Your task to perform on an android device: Search for "beats solo 3" on target, select the first entry, add it to the cart, then select checkout. Image 0: 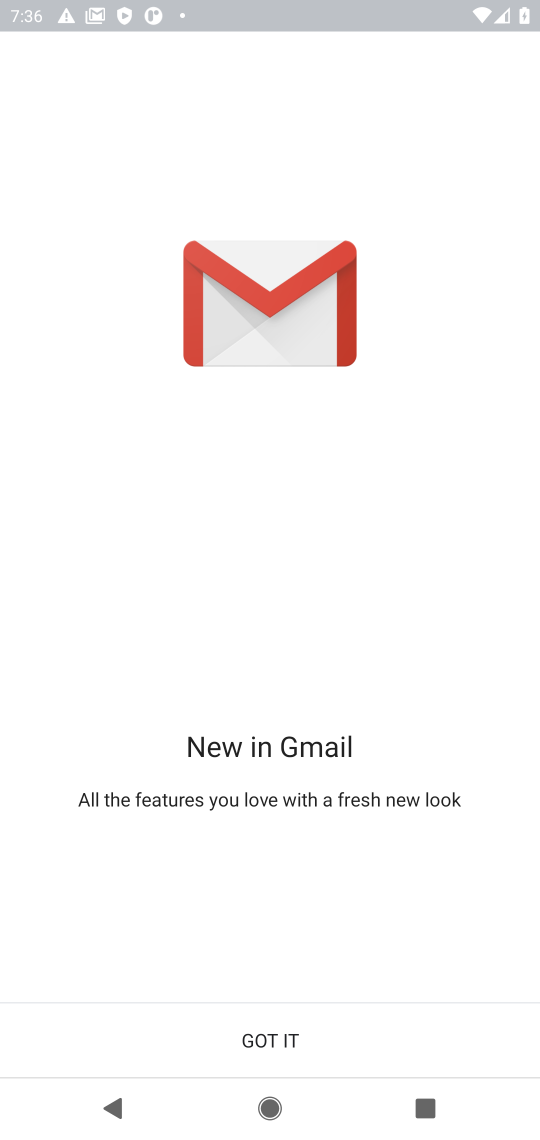
Step 0: press home button
Your task to perform on an android device: Search for "beats solo 3" on target, select the first entry, add it to the cart, then select checkout. Image 1: 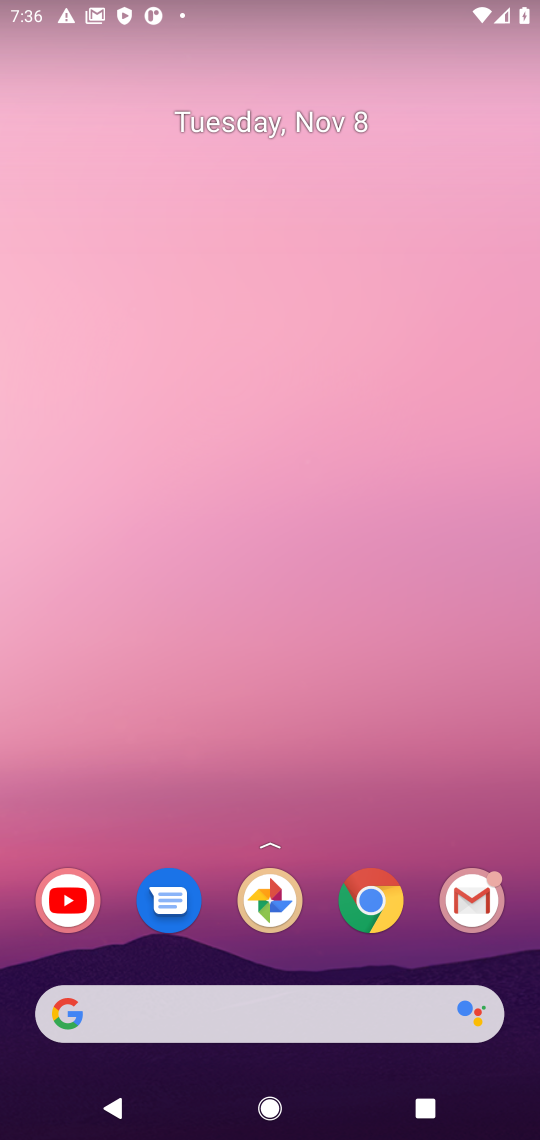
Step 1: click (372, 894)
Your task to perform on an android device: Search for "beats solo 3" on target, select the first entry, add it to the cart, then select checkout. Image 2: 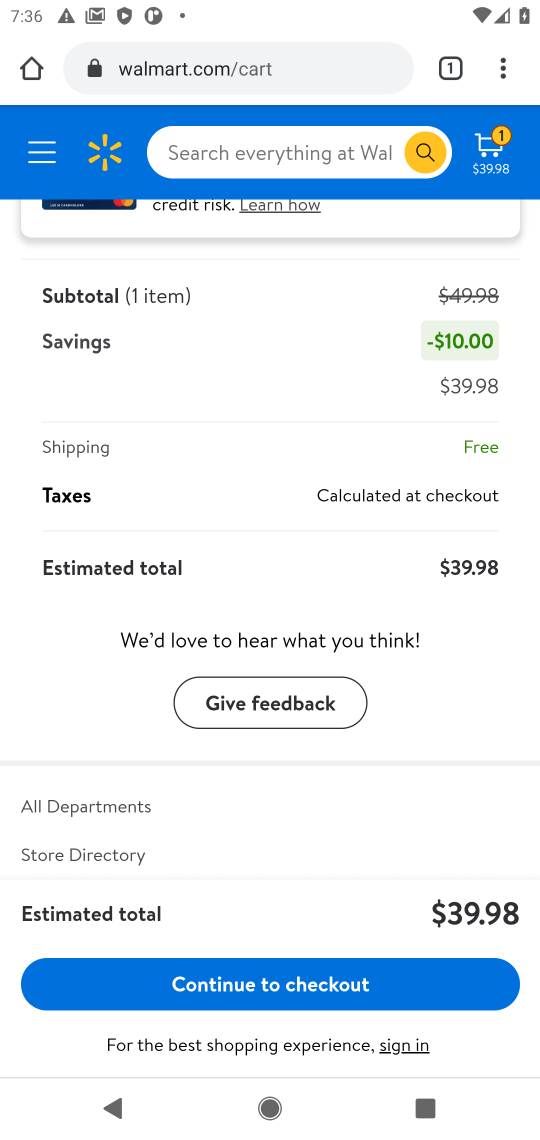
Step 2: click (158, 56)
Your task to perform on an android device: Search for "beats solo 3" on target, select the first entry, add it to the cart, then select checkout. Image 3: 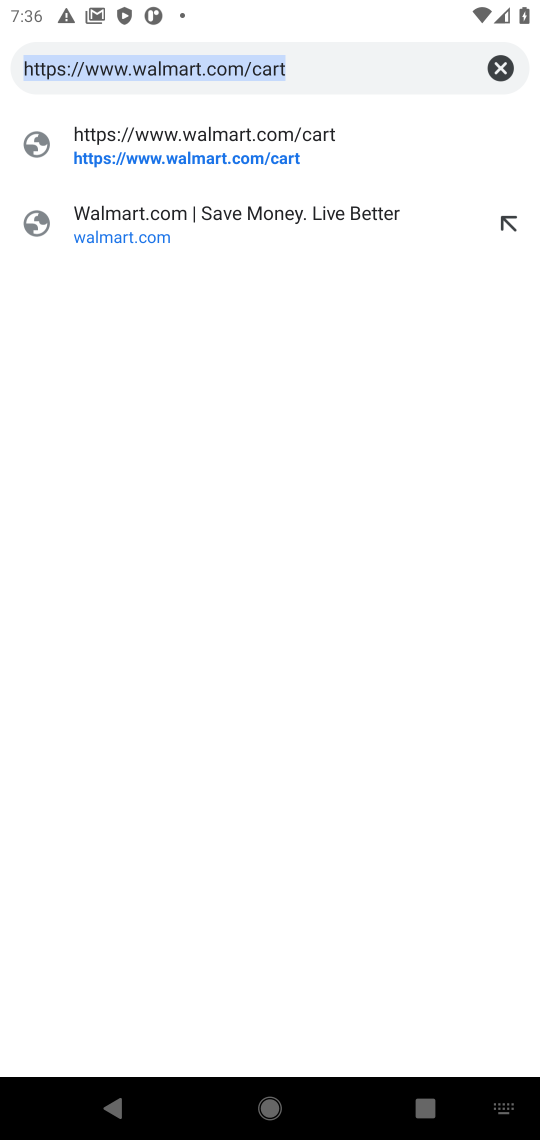
Step 3: click (494, 64)
Your task to perform on an android device: Search for "beats solo 3" on target, select the first entry, add it to the cart, then select checkout. Image 4: 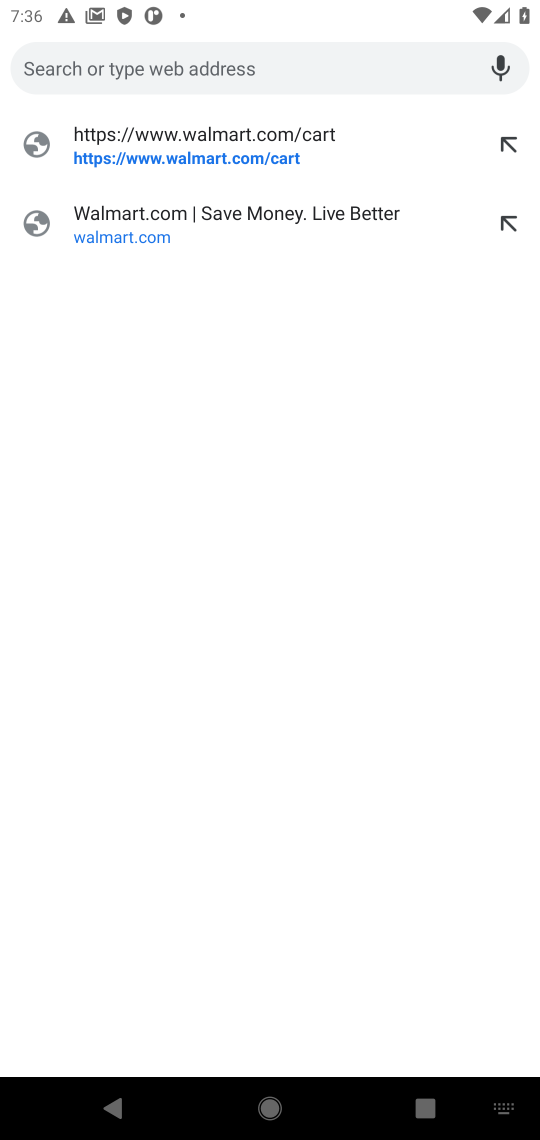
Step 4: type "target"
Your task to perform on an android device: Search for "beats solo 3" on target, select the first entry, add it to the cart, then select checkout. Image 5: 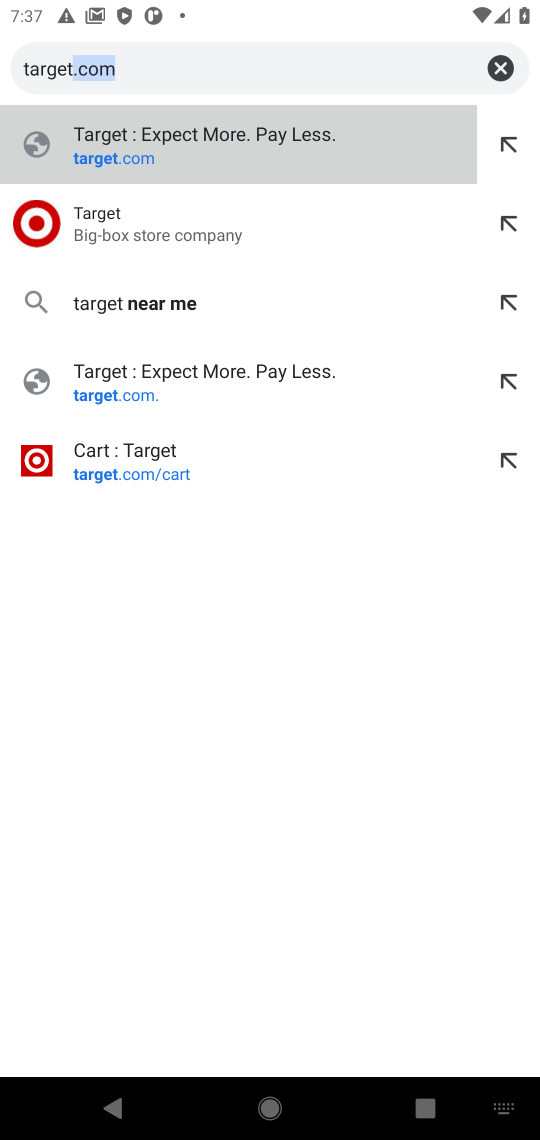
Step 5: click (67, 226)
Your task to perform on an android device: Search for "beats solo 3" on target, select the first entry, add it to the cart, then select checkout. Image 6: 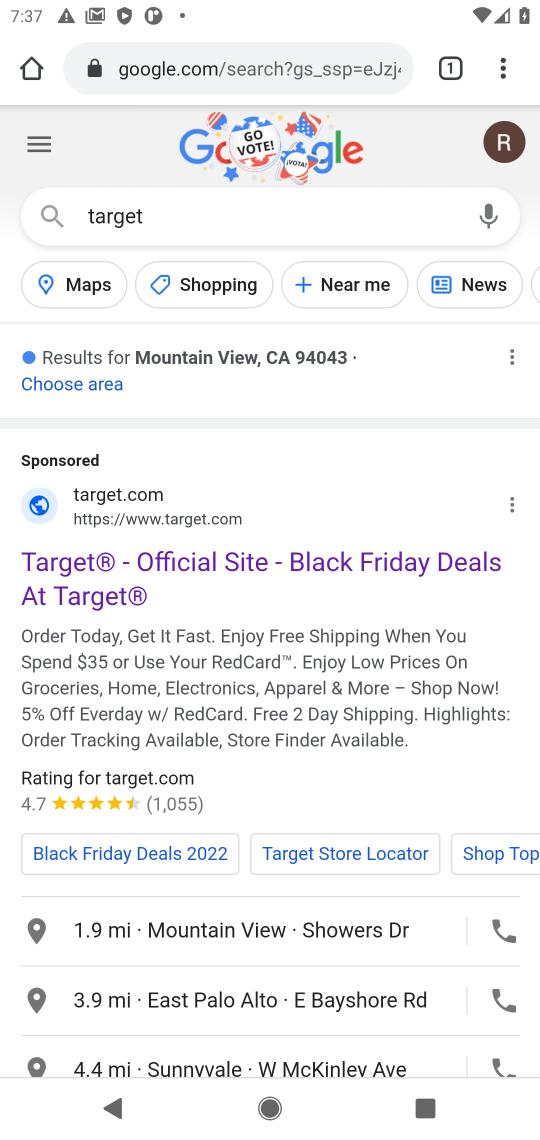
Step 6: drag from (189, 758) to (222, 75)
Your task to perform on an android device: Search for "beats solo 3" on target, select the first entry, add it to the cart, then select checkout. Image 7: 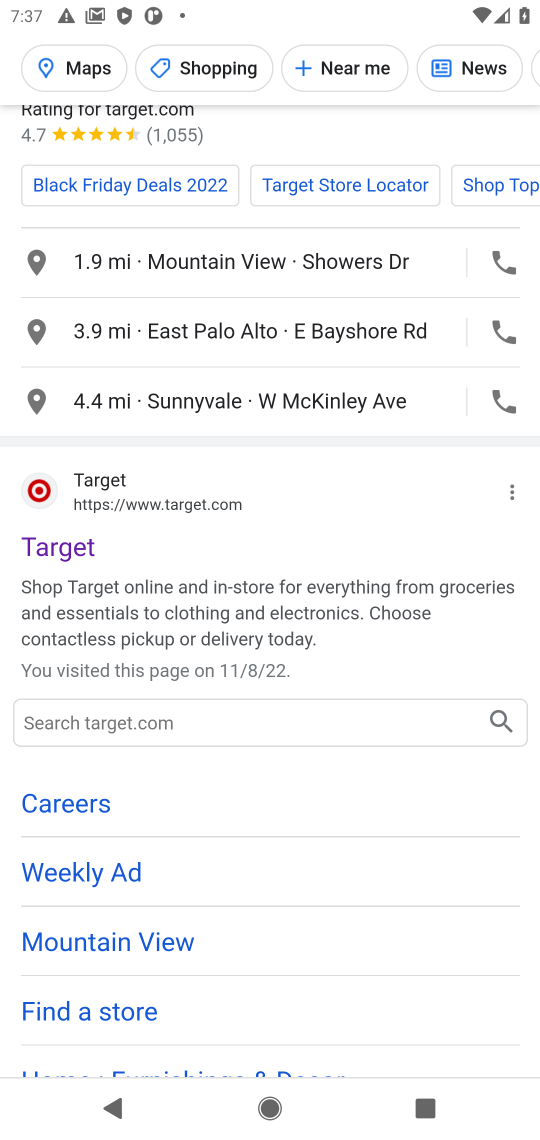
Step 7: click (72, 545)
Your task to perform on an android device: Search for "beats solo 3" on target, select the first entry, add it to the cart, then select checkout. Image 8: 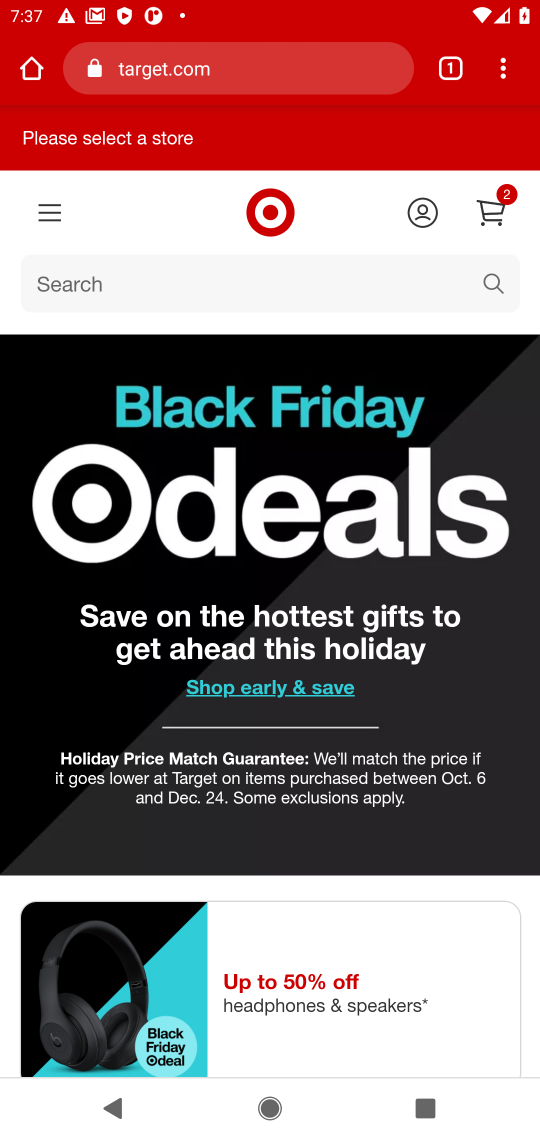
Step 8: click (100, 288)
Your task to perform on an android device: Search for "beats solo 3" on target, select the first entry, add it to the cart, then select checkout. Image 9: 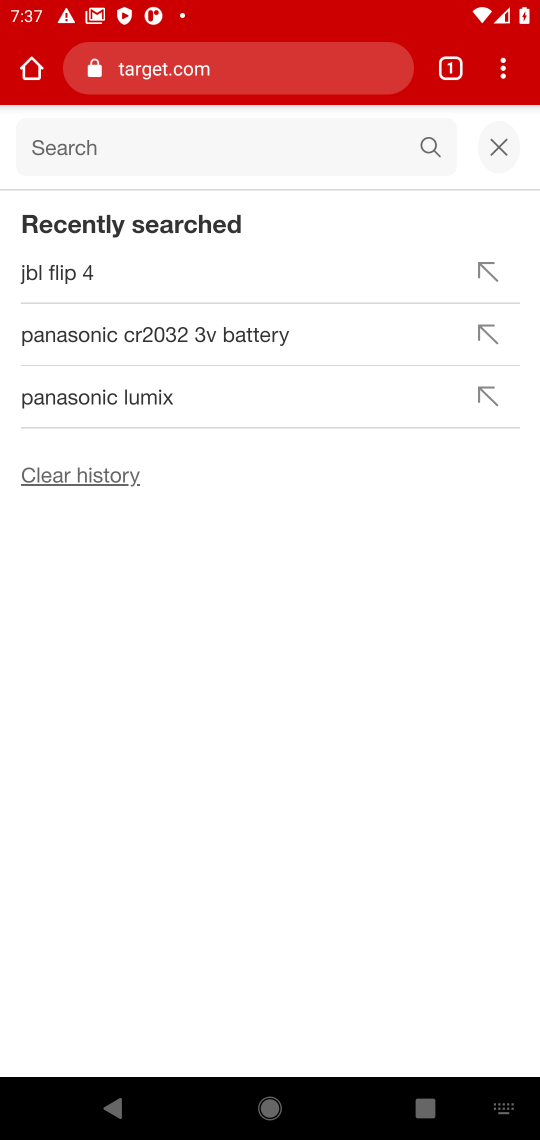
Step 9: type "beat solo 3 "
Your task to perform on an android device: Search for "beats solo 3" on target, select the first entry, add it to the cart, then select checkout. Image 10: 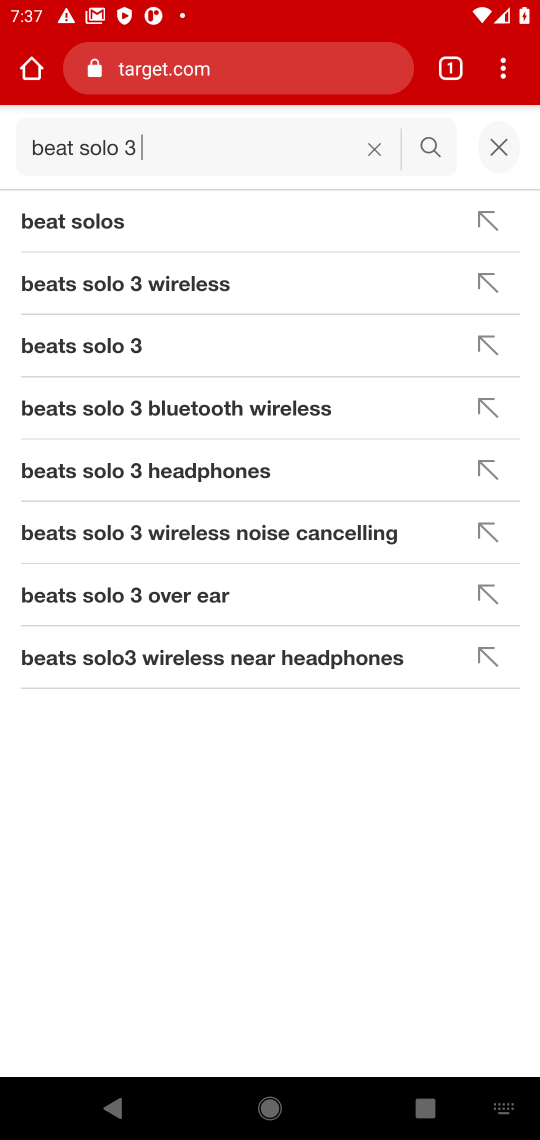
Step 10: type ""
Your task to perform on an android device: Search for "beats solo 3" on target, select the first entry, add it to the cart, then select checkout. Image 11: 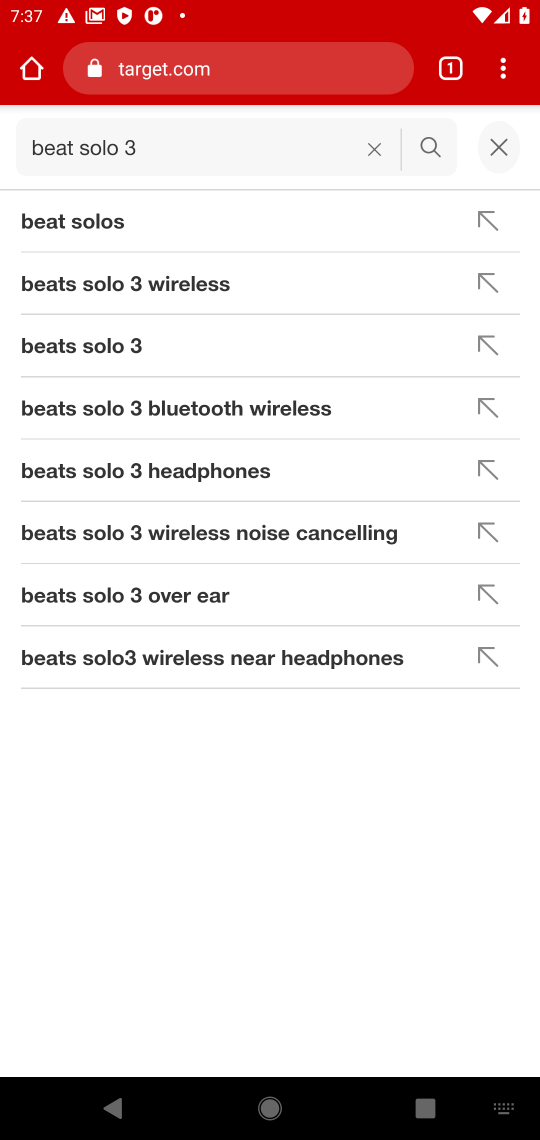
Step 11: click (91, 339)
Your task to perform on an android device: Search for "beats solo 3" on target, select the first entry, add it to the cart, then select checkout. Image 12: 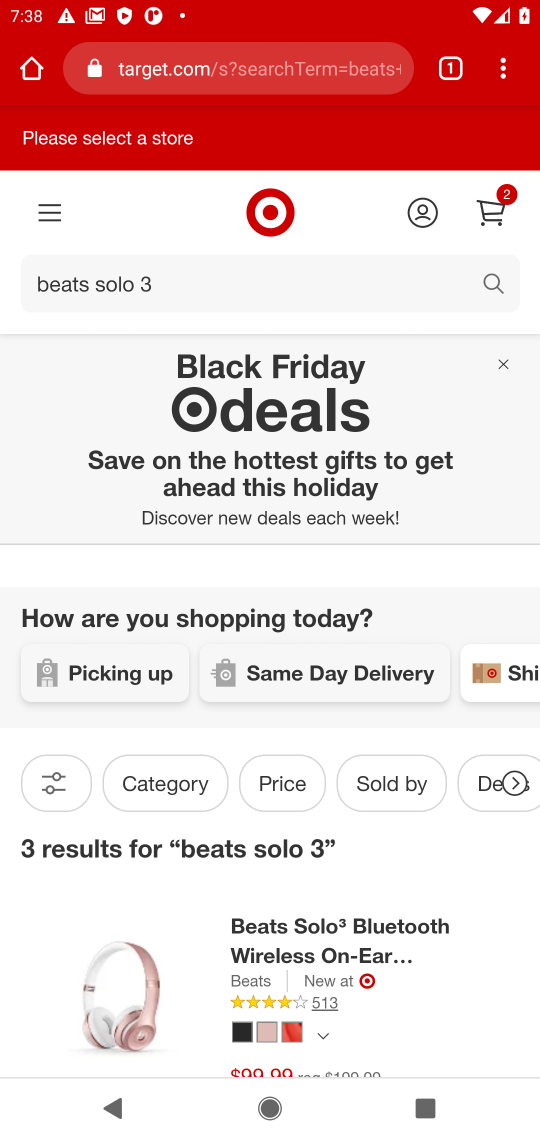
Step 12: click (279, 960)
Your task to perform on an android device: Search for "beats solo 3" on target, select the first entry, add it to the cart, then select checkout. Image 13: 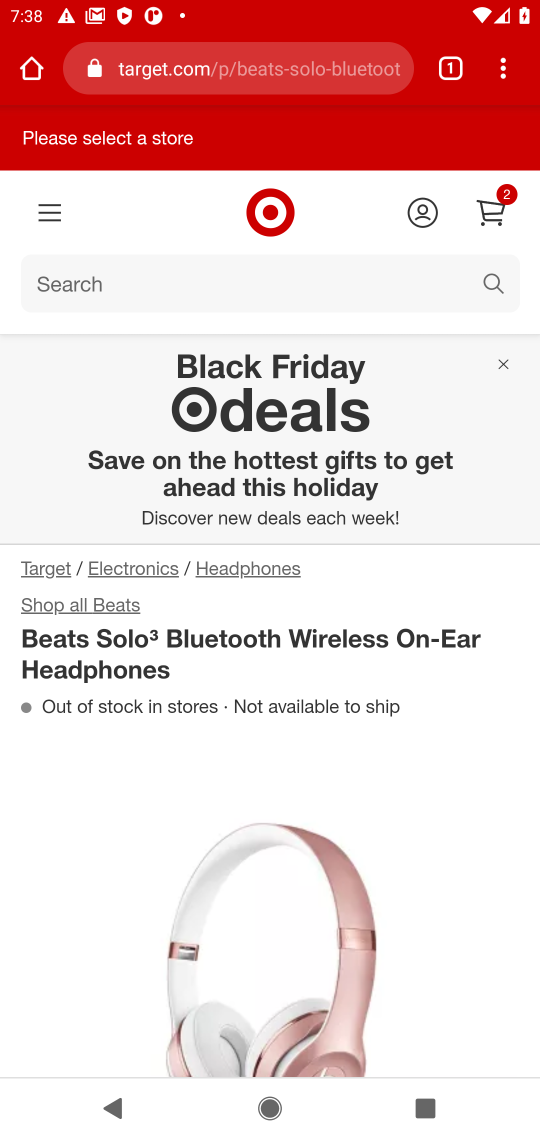
Step 13: drag from (183, 989) to (314, 114)
Your task to perform on an android device: Search for "beats solo 3" on target, select the first entry, add it to the cart, then select checkout. Image 14: 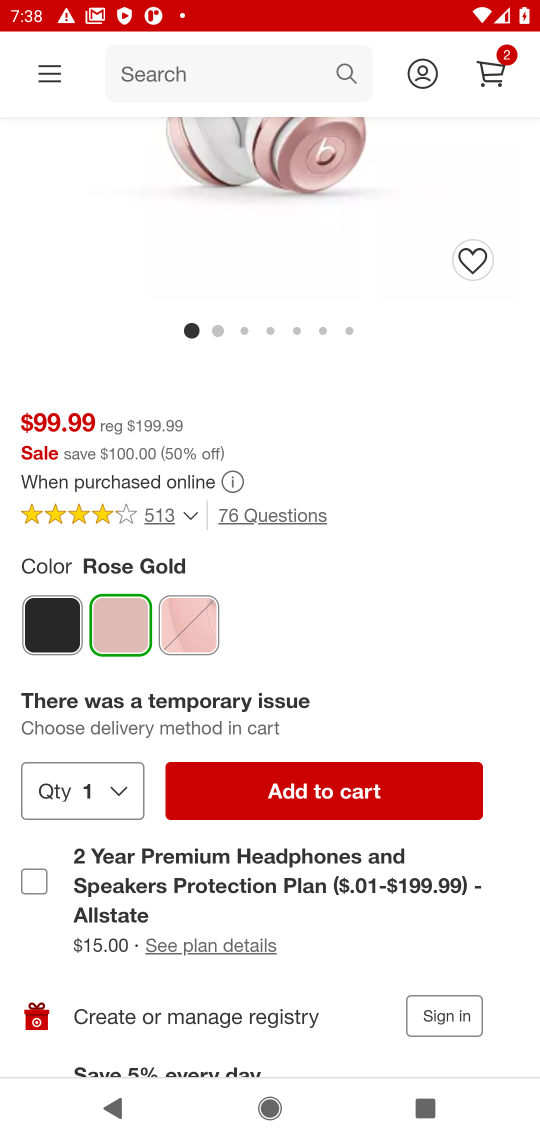
Step 14: click (354, 794)
Your task to perform on an android device: Search for "beats solo 3" on target, select the first entry, add it to the cart, then select checkout. Image 15: 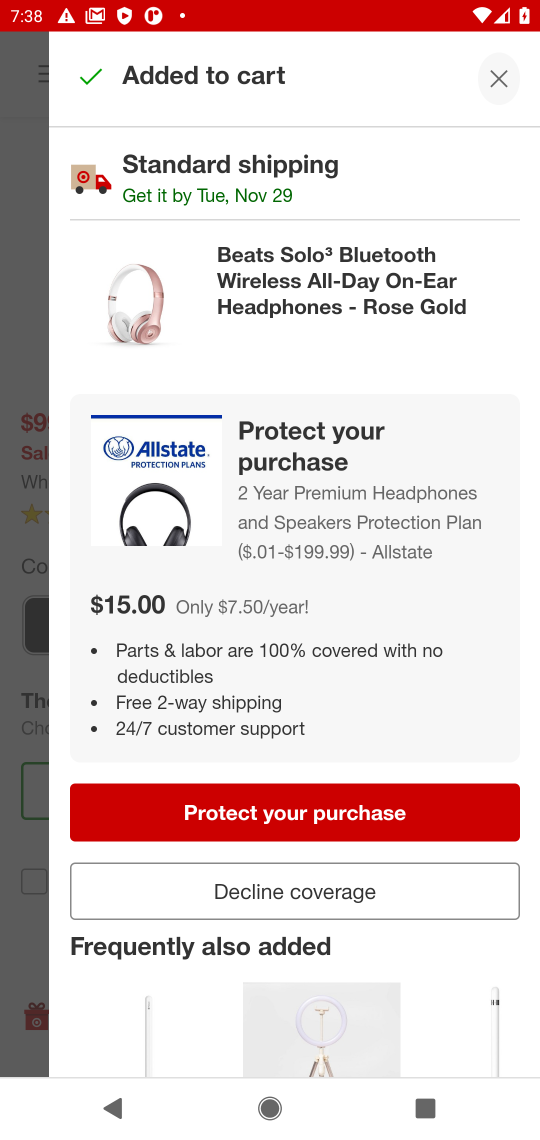
Step 15: click (316, 819)
Your task to perform on an android device: Search for "beats solo 3" on target, select the first entry, add it to the cart, then select checkout. Image 16: 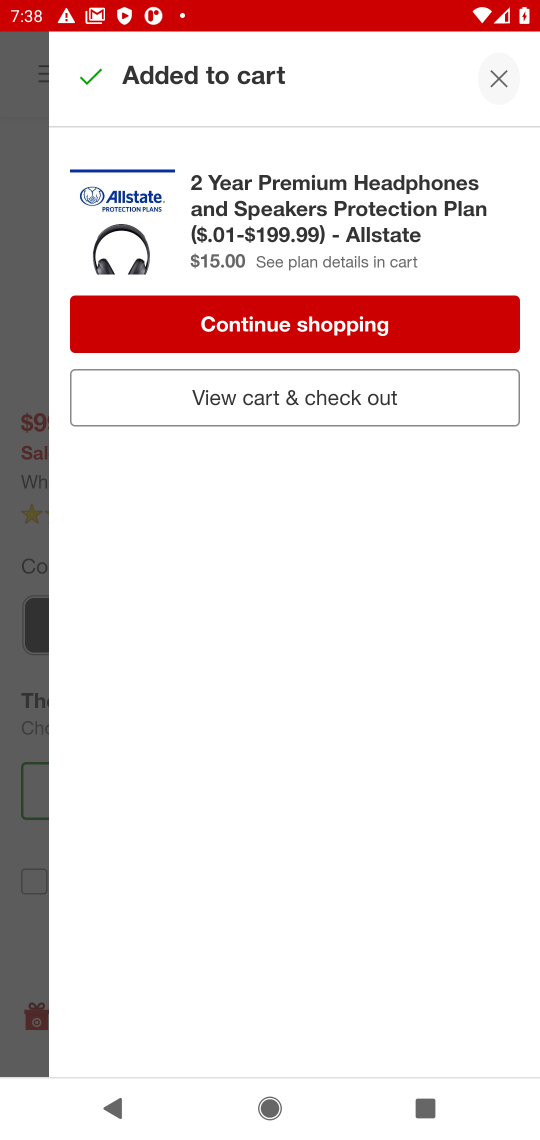
Step 16: click (260, 402)
Your task to perform on an android device: Search for "beats solo 3" on target, select the first entry, add it to the cart, then select checkout. Image 17: 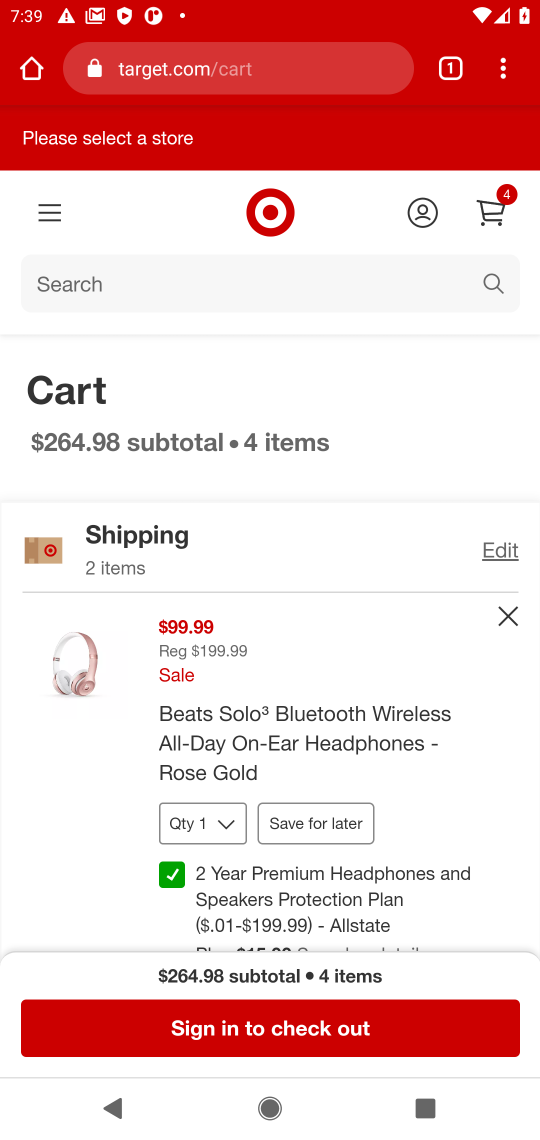
Step 17: drag from (108, 743) to (123, 351)
Your task to perform on an android device: Search for "beats solo 3" on target, select the first entry, add it to the cart, then select checkout. Image 18: 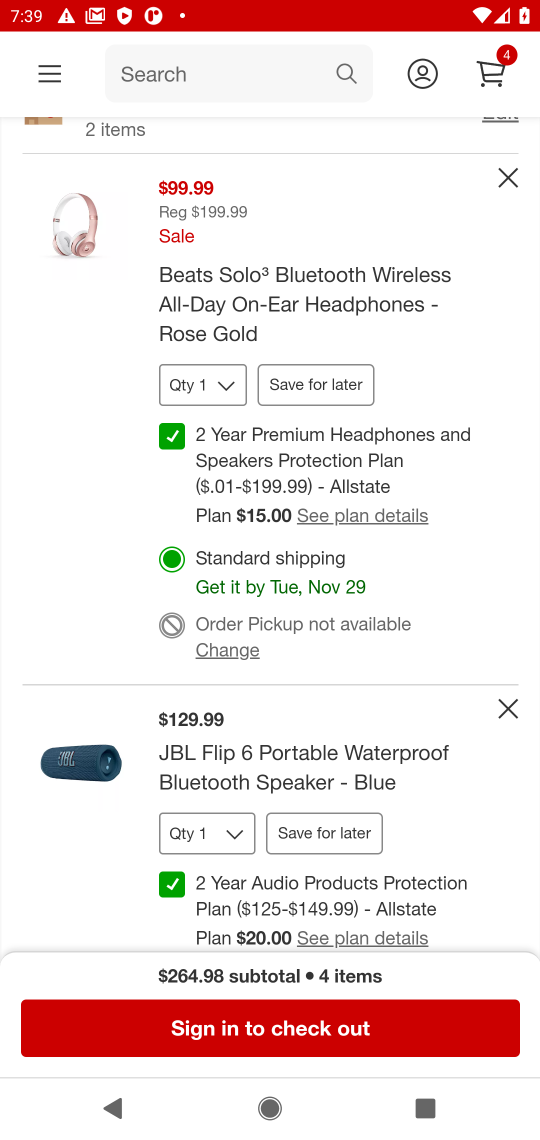
Step 18: drag from (414, 887) to (421, 445)
Your task to perform on an android device: Search for "beats solo 3" on target, select the first entry, add it to the cart, then select checkout. Image 19: 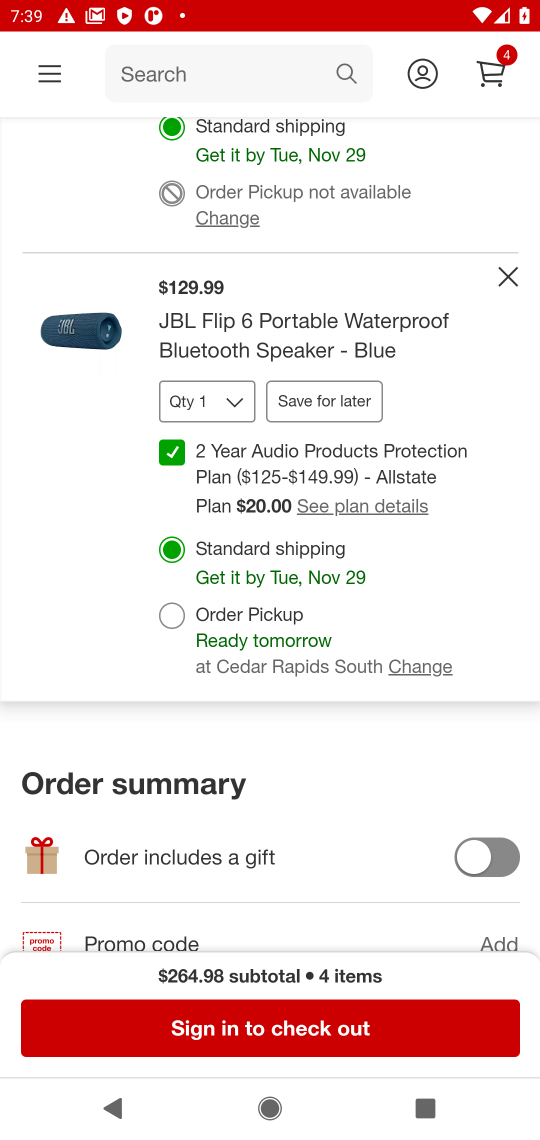
Step 19: click (290, 1031)
Your task to perform on an android device: Search for "beats solo 3" on target, select the first entry, add it to the cart, then select checkout. Image 20: 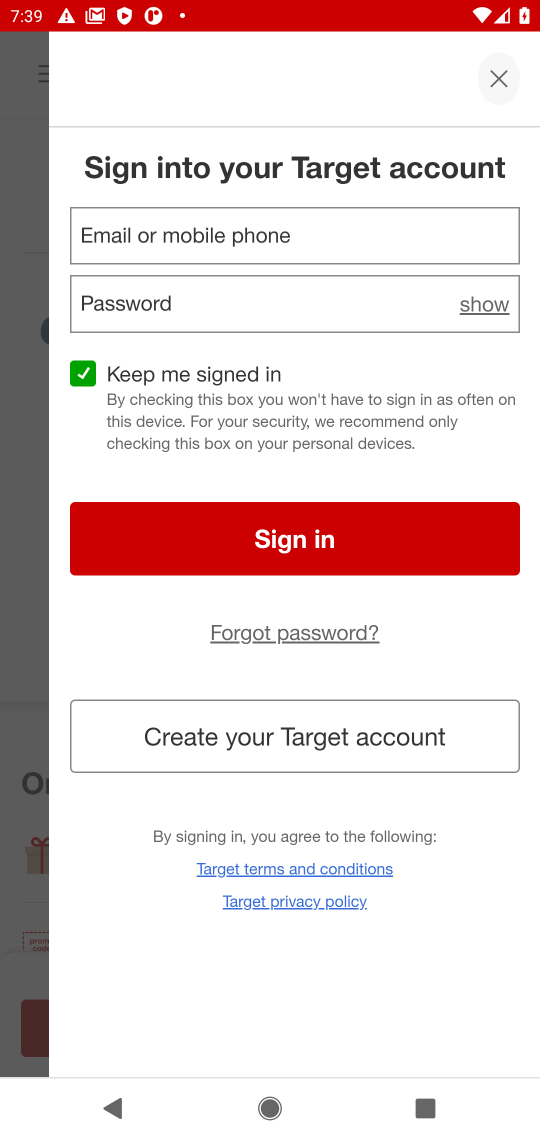
Step 20: task complete